Your task to perform on an android device: Check the news Image 0: 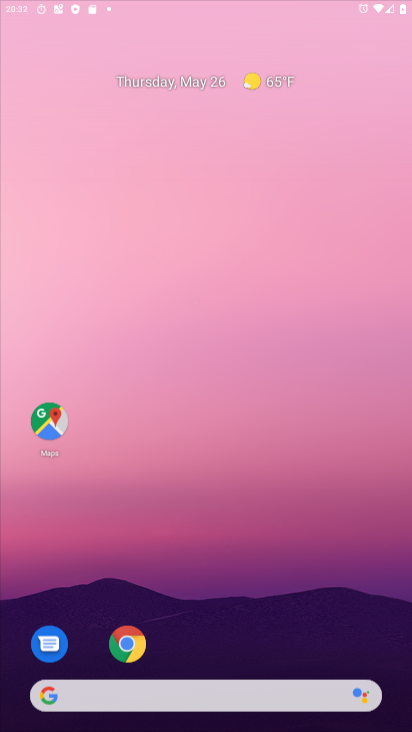
Step 0: drag from (219, 193) to (261, 168)
Your task to perform on an android device: Check the news Image 1: 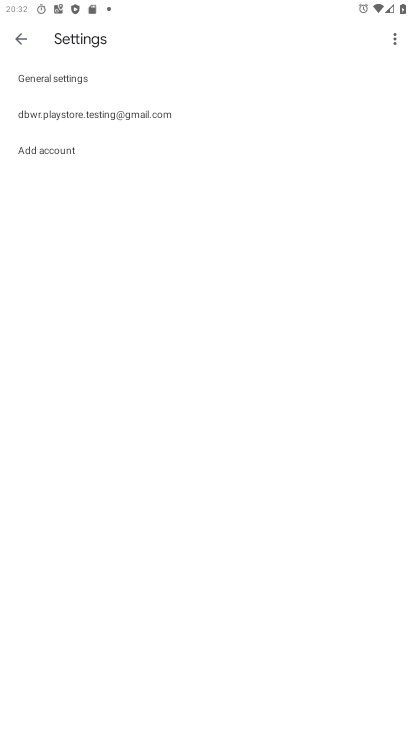
Step 1: press home button
Your task to perform on an android device: Check the news Image 2: 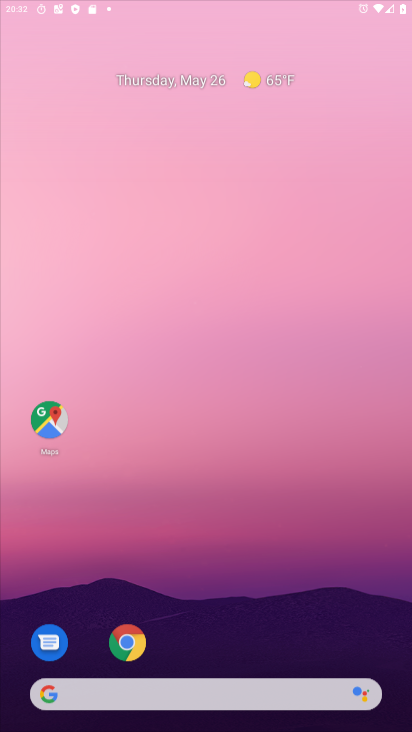
Step 2: drag from (195, 688) to (176, 324)
Your task to perform on an android device: Check the news Image 3: 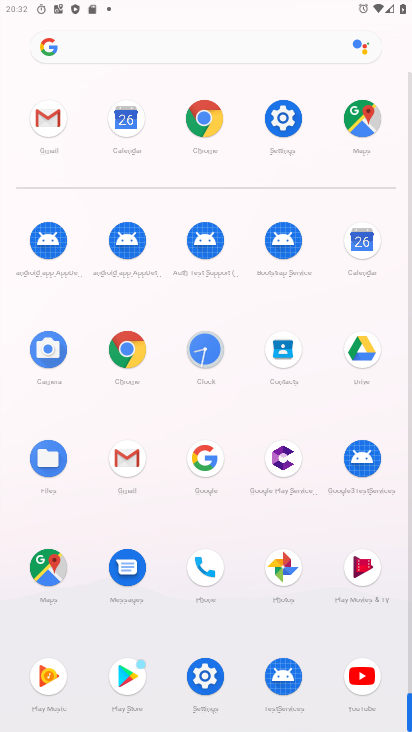
Step 3: click (177, 54)
Your task to perform on an android device: Check the news Image 4: 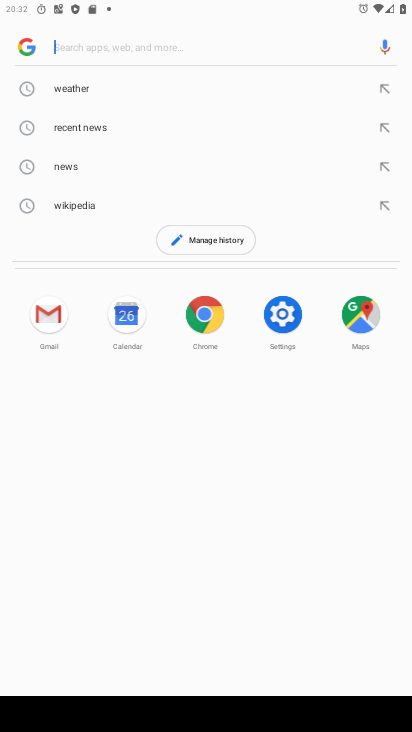
Step 4: click (52, 173)
Your task to perform on an android device: Check the news Image 5: 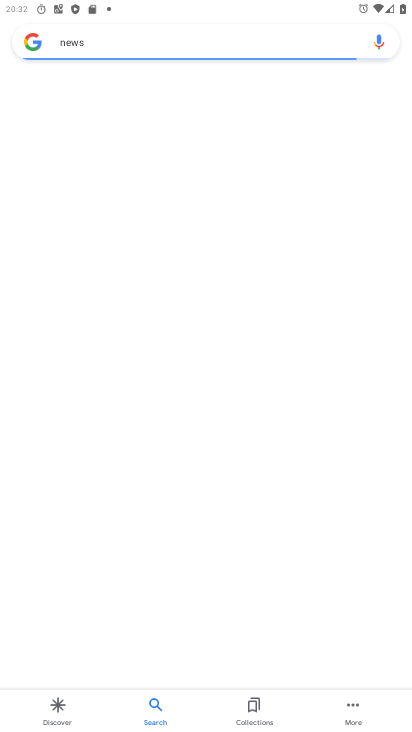
Step 5: task complete